Your task to perform on an android device: install app "AliExpress" Image 0: 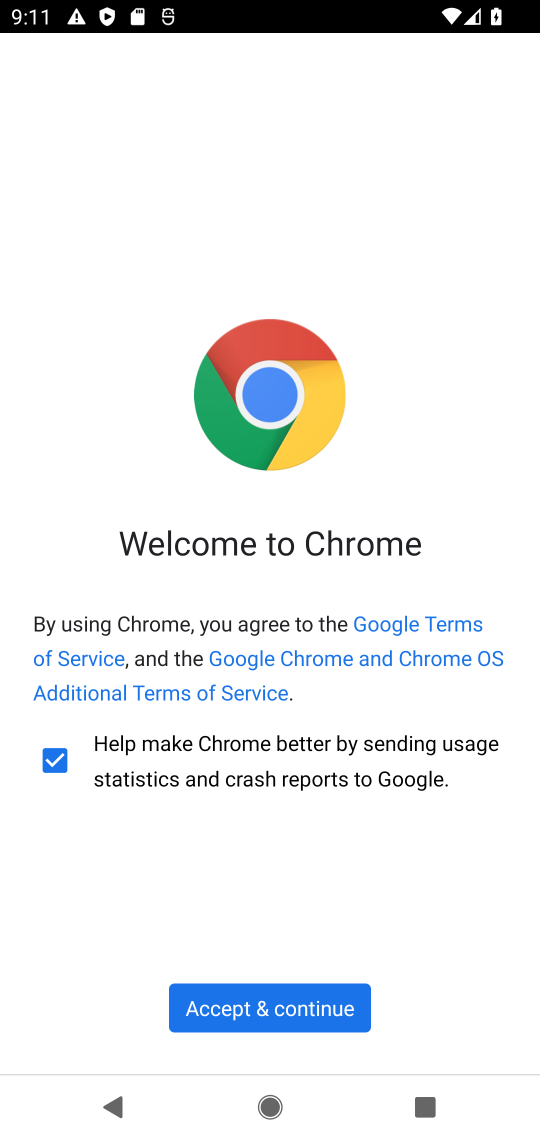
Step 0: press home button
Your task to perform on an android device: install app "AliExpress" Image 1: 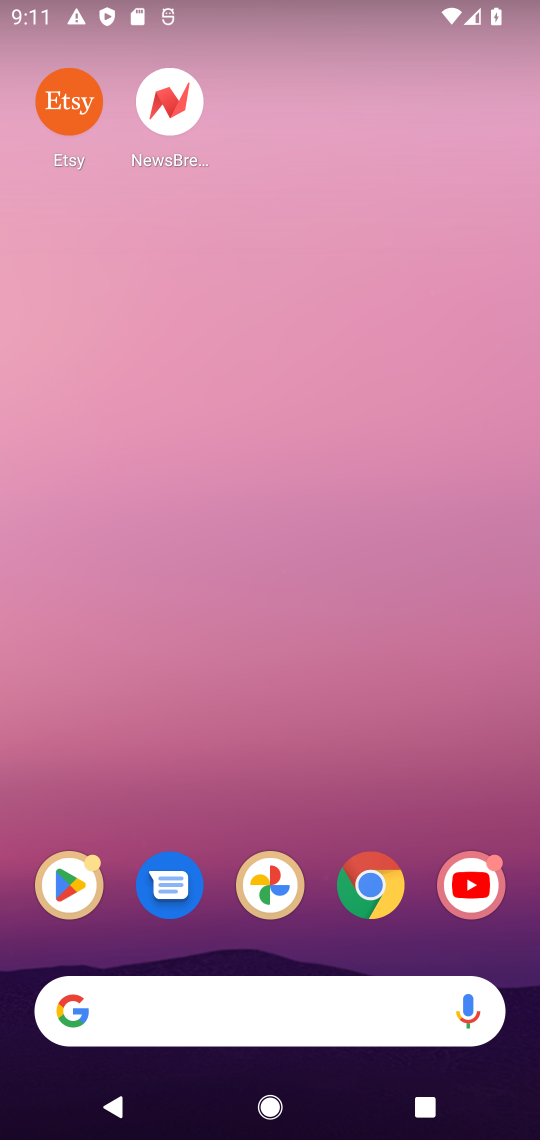
Step 1: click (64, 893)
Your task to perform on an android device: install app "AliExpress" Image 2: 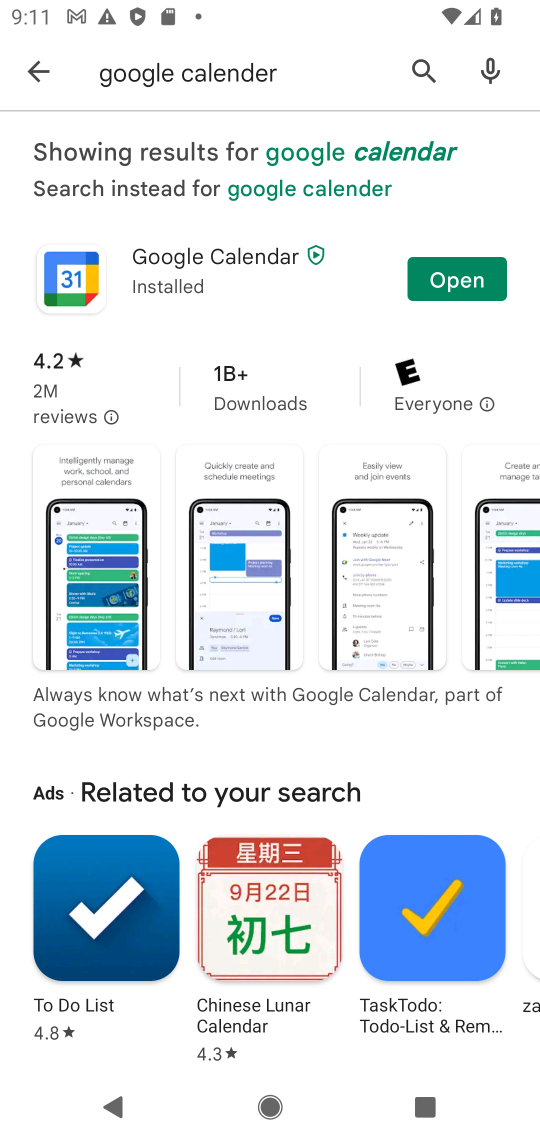
Step 2: click (226, 67)
Your task to perform on an android device: install app "AliExpress" Image 3: 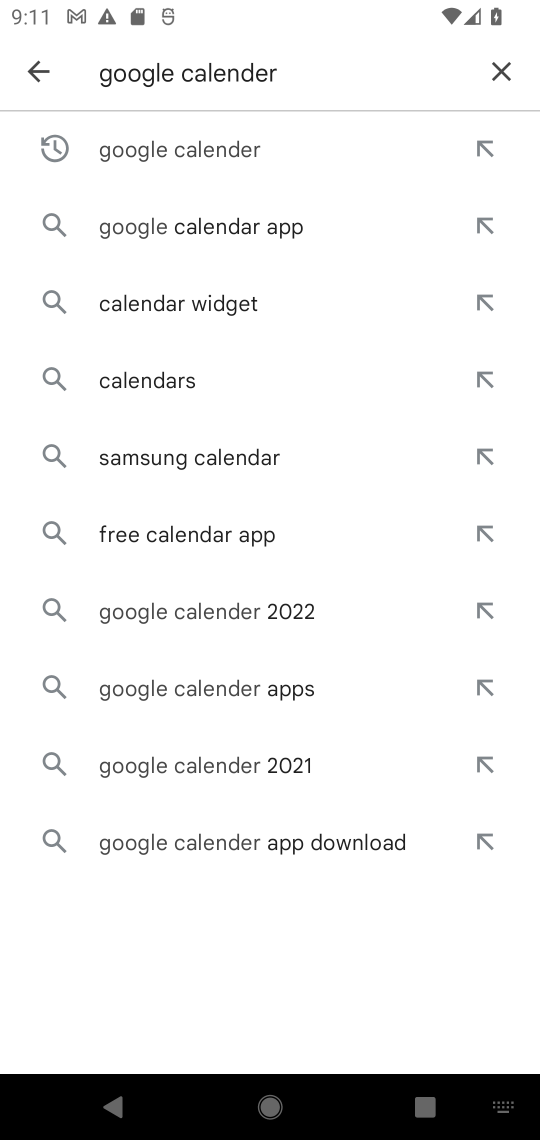
Step 3: click (501, 67)
Your task to perform on an android device: install app "AliExpress" Image 4: 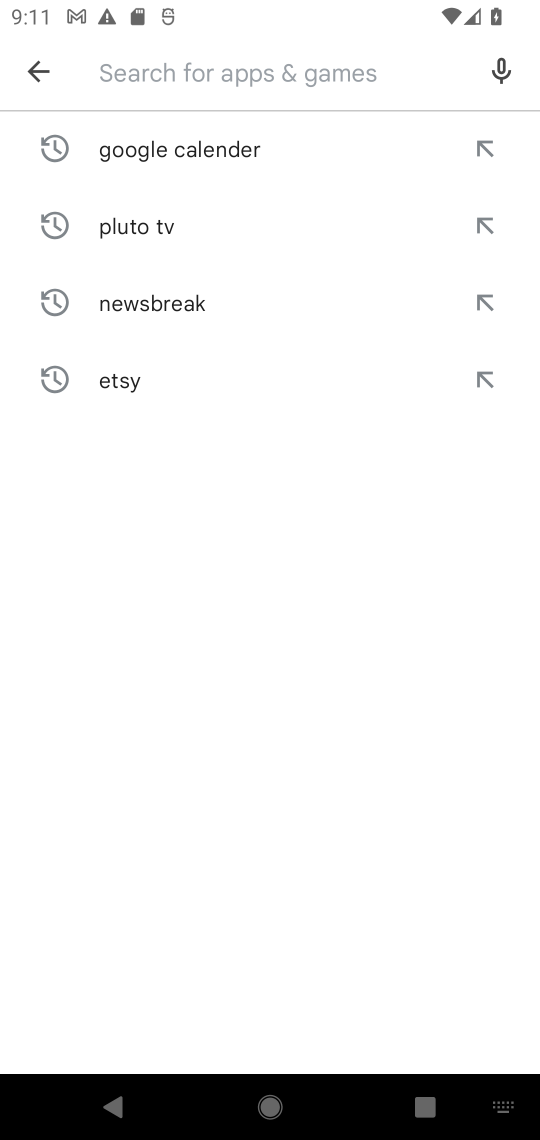
Step 4: type "Ali Express"
Your task to perform on an android device: install app "AliExpress" Image 5: 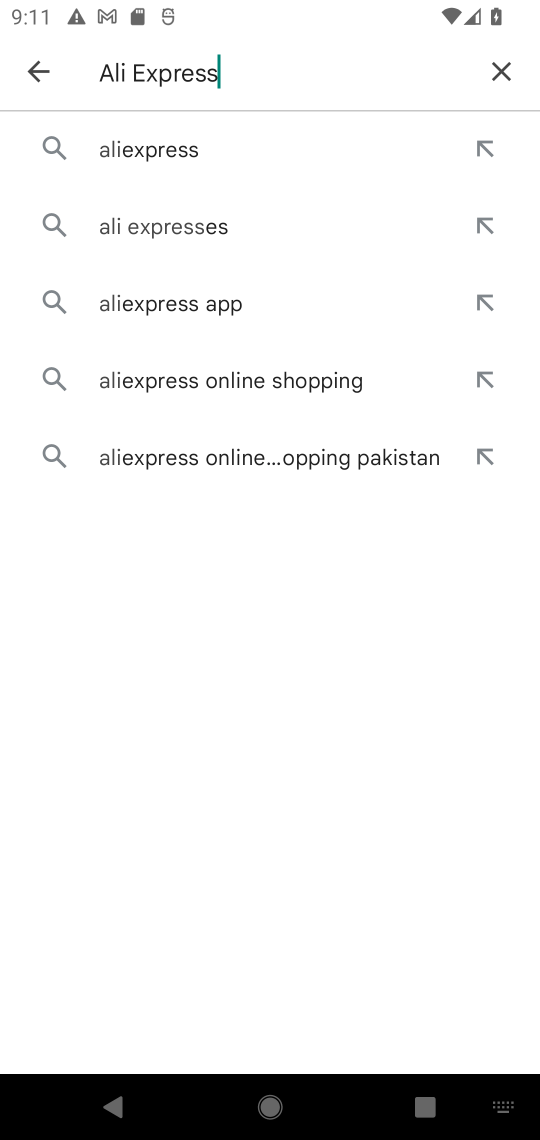
Step 5: click (149, 155)
Your task to perform on an android device: install app "AliExpress" Image 6: 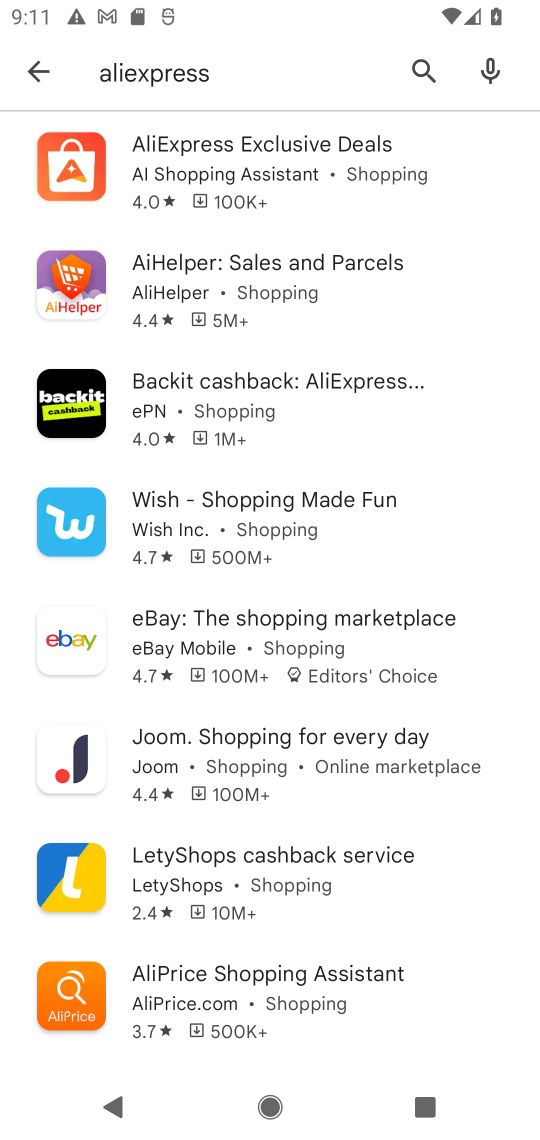
Step 6: click (176, 171)
Your task to perform on an android device: install app "AliExpress" Image 7: 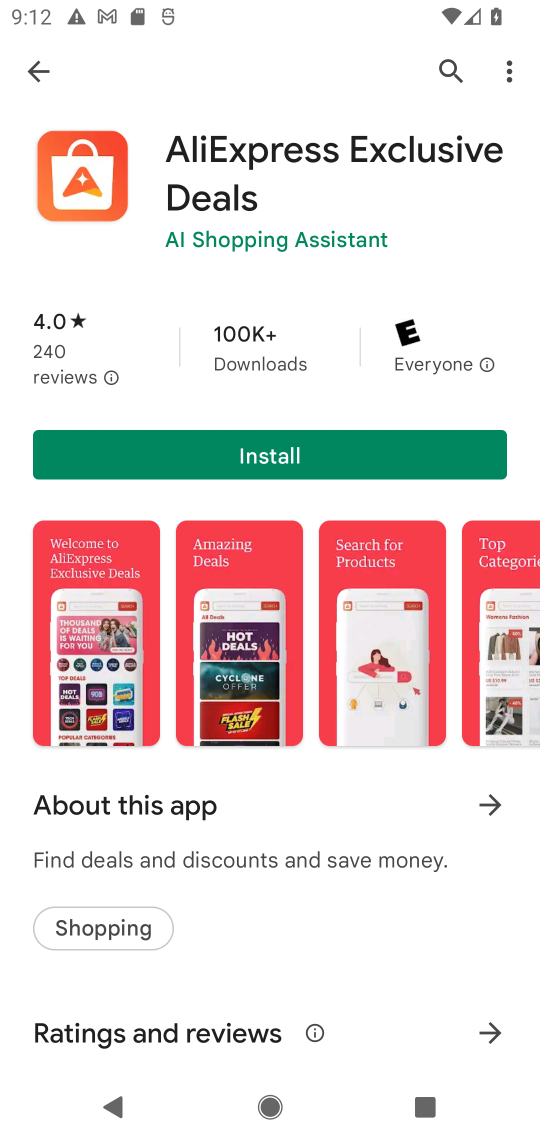
Step 7: click (219, 472)
Your task to perform on an android device: install app "AliExpress" Image 8: 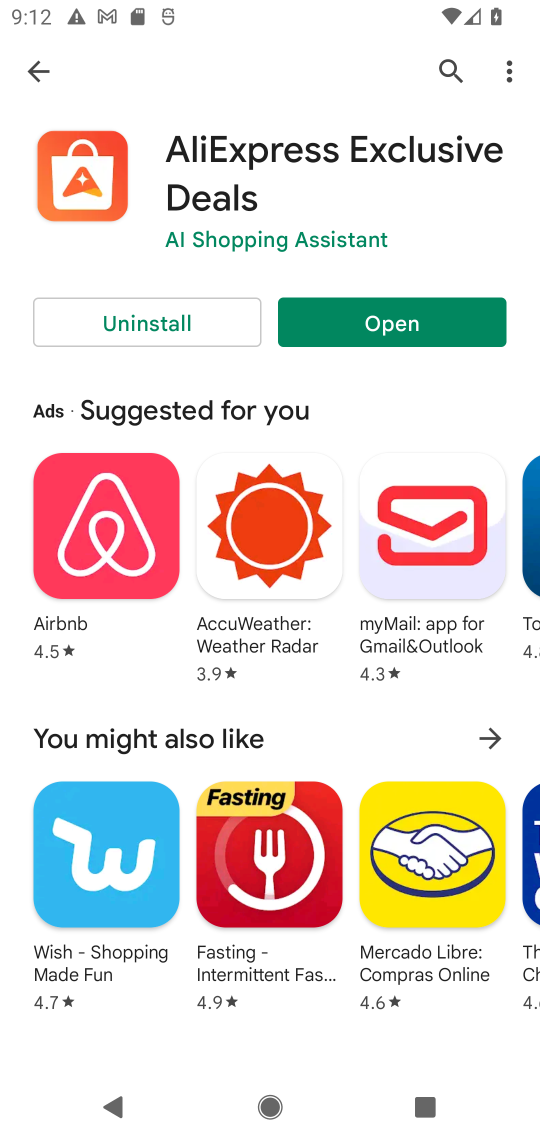
Step 8: click (377, 331)
Your task to perform on an android device: install app "AliExpress" Image 9: 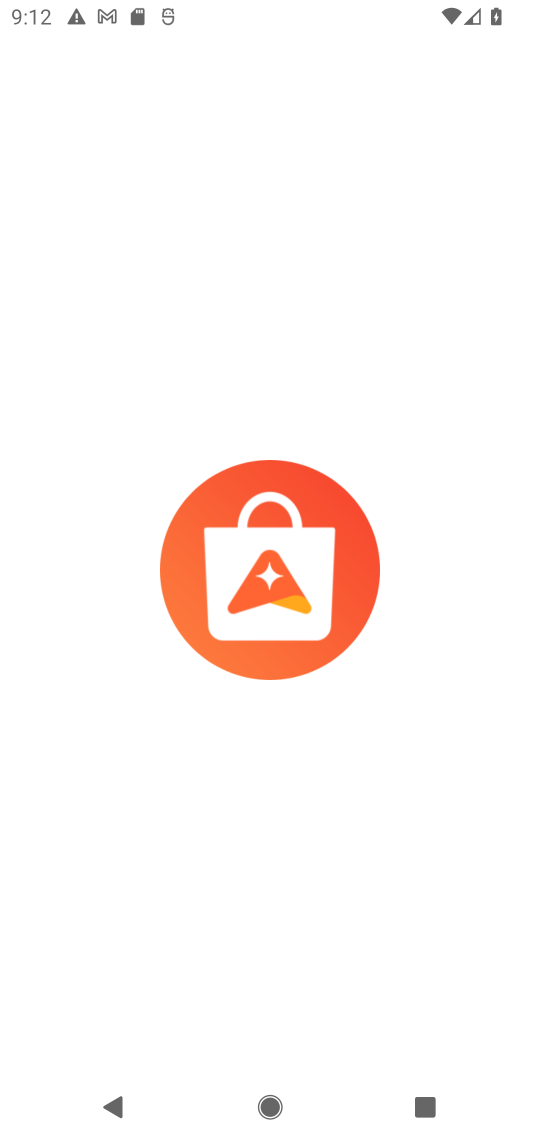
Step 9: task complete